Your task to perform on an android device: search for starred emails in the gmail app Image 0: 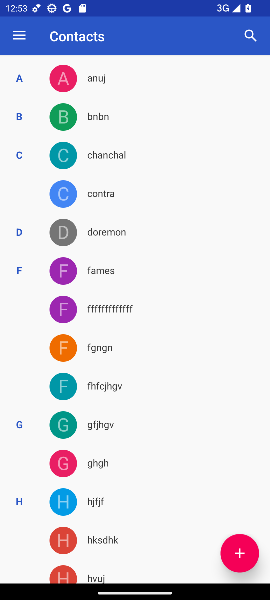
Step 0: press home button
Your task to perform on an android device: search for starred emails in the gmail app Image 1: 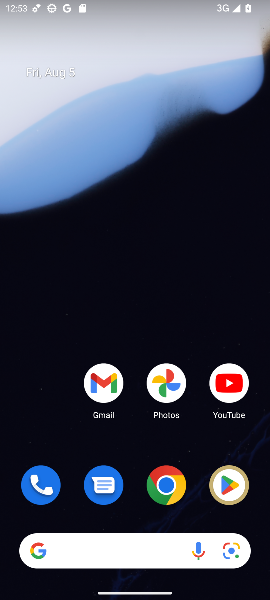
Step 1: drag from (49, 419) to (72, 4)
Your task to perform on an android device: search for starred emails in the gmail app Image 2: 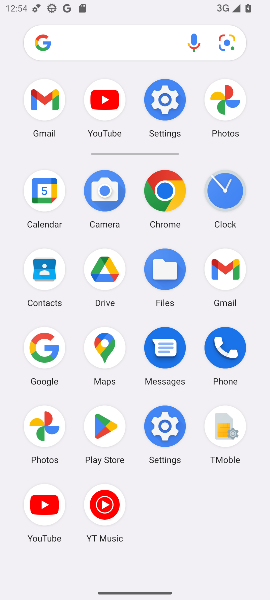
Step 2: click (43, 104)
Your task to perform on an android device: search for starred emails in the gmail app Image 3: 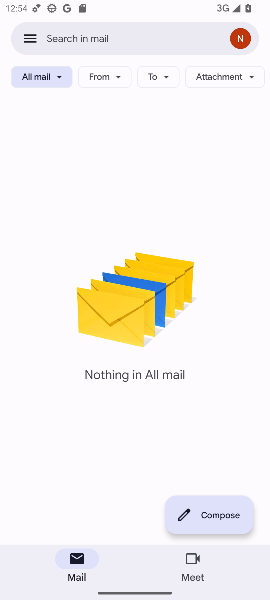
Step 3: click (33, 33)
Your task to perform on an android device: search for starred emails in the gmail app Image 4: 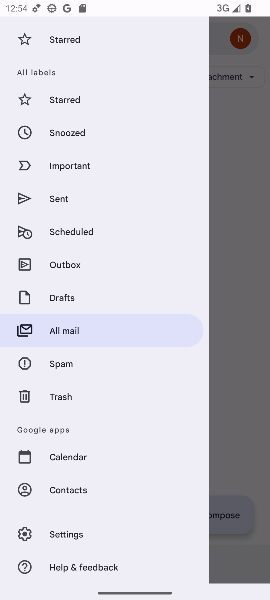
Step 4: click (71, 99)
Your task to perform on an android device: search for starred emails in the gmail app Image 5: 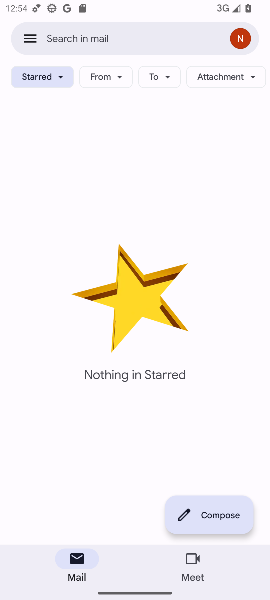
Step 5: task complete